Your task to perform on an android device: delete the emails in spam in the gmail app Image 0: 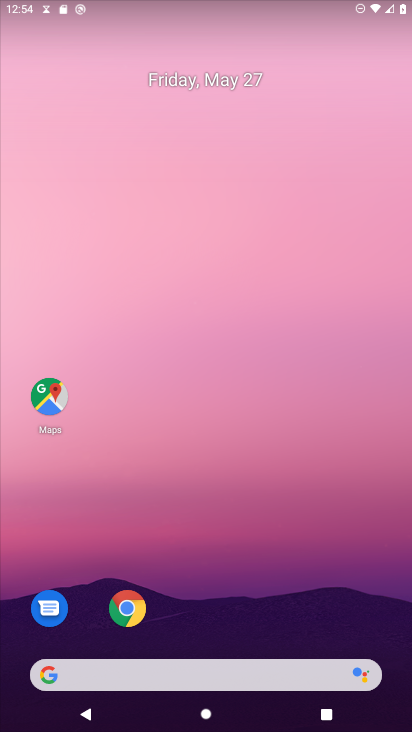
Step 0: press home button
Your task to perform on an android device: delete the emails in spam in the gmail app Image 1: 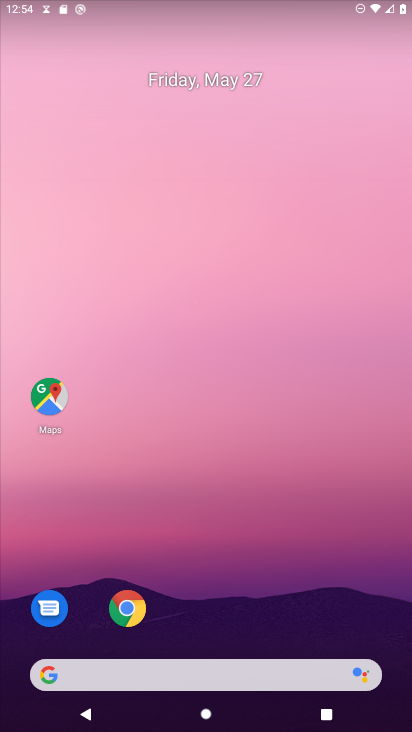
Step 1: drag from (149, 668) to (265, 148)
Your task to perform on an android device: delete the emails in spam in the gmail app Image 2: 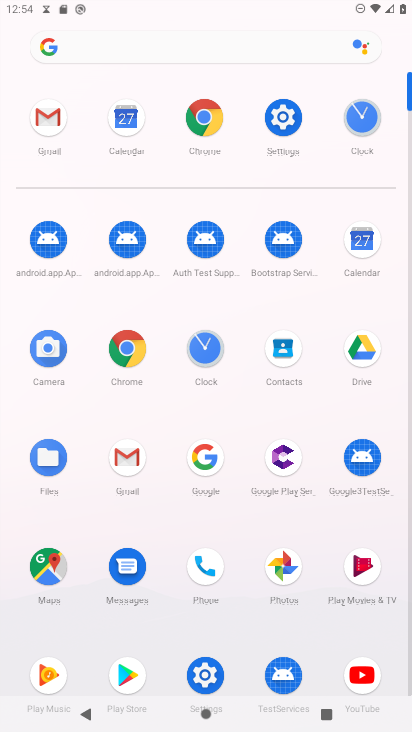
Step 2: click (41, 132)
Your task to perform on an android device: delete the emails in spam in the gmail app Image 3: 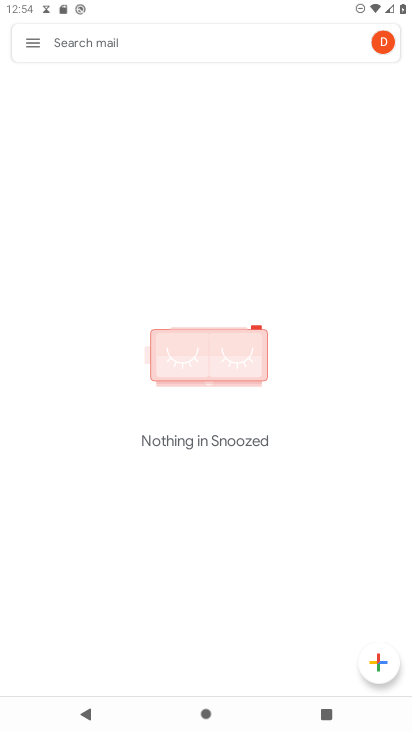
Step 3: click (32, 44)
Your task to perform on an android device: delete the emails in spam in the gmail app Image 4: 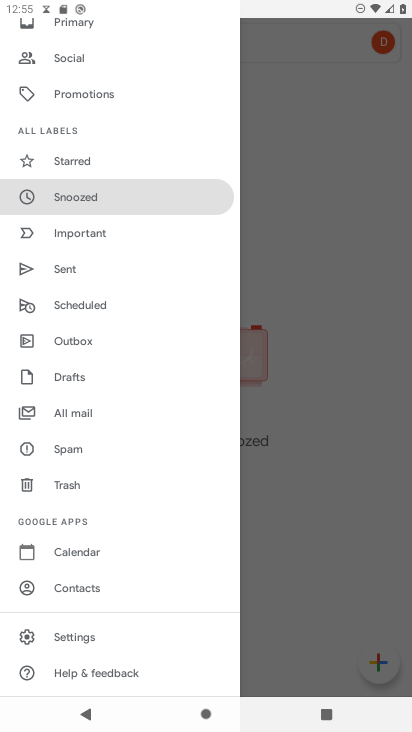
Step 4: click (60, 452)
Your task to perform on an android device: delete the emails in spam in the gmail app Image 5: 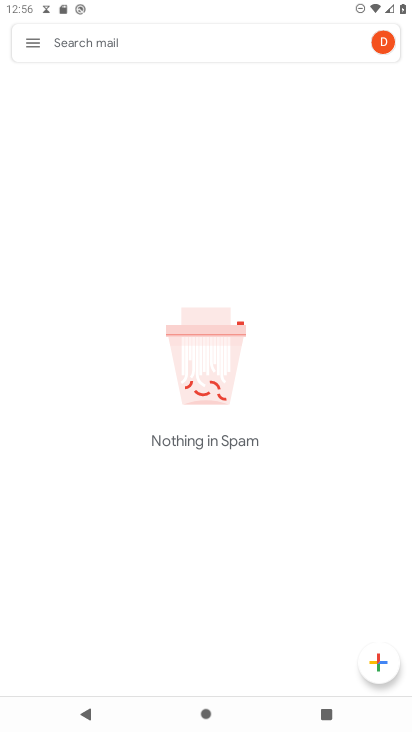
Step 5: task complete